Your task to perform on an android device: check storage Image 0: 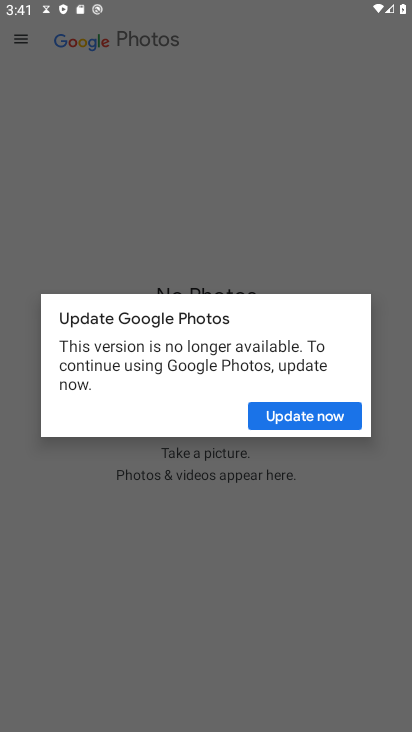
Step 0: press home button
Your task to perform on an android device: check storage Image 1: 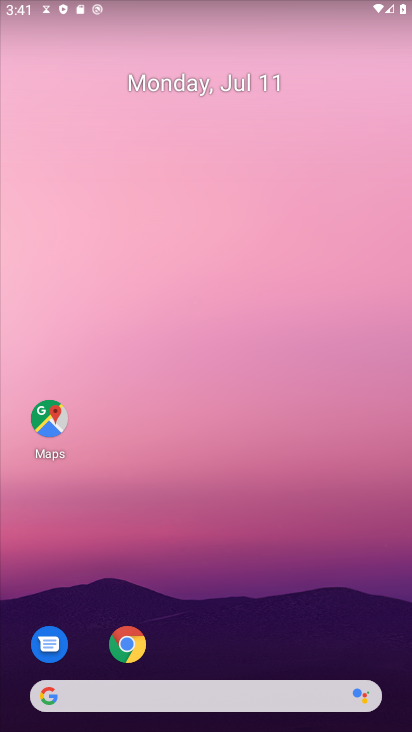
Step 1: drag from (218, 659) to (214, 141)
Your task to perform on an android device: check storage Image 2: 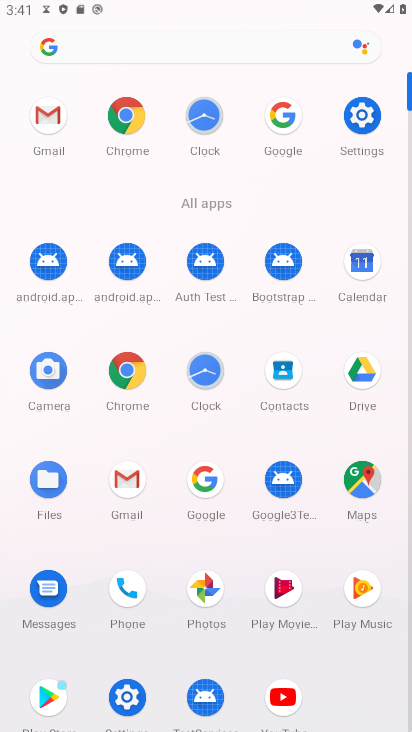
Step 2: click (358, 125)
Your task to perform on an android device: check storage Image 3: 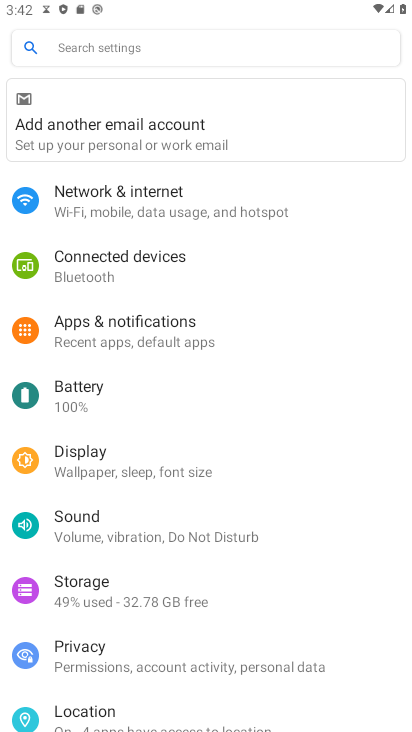
Step 3: click (77, 595)
Your task to perform on an android device: check storage Image 4: 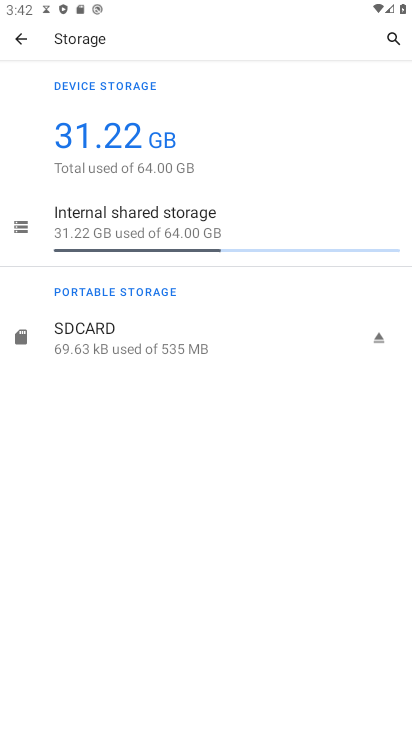
Step 4: task complete